Your task to perform on an android device: delete a single message in the gmail app Image 0: 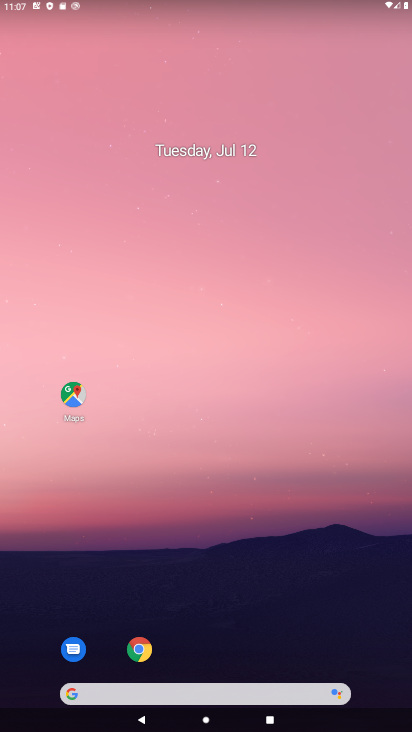
Step 0: drag from (370, 674) to (336, 88)
Your task to perform on an android device: delete a single message in the gmail app Image 1: 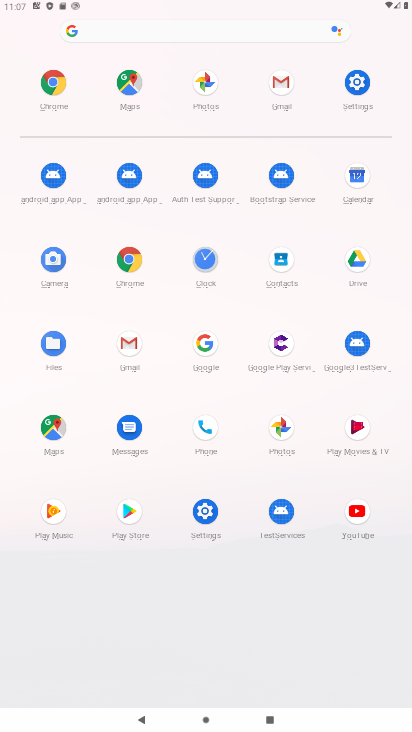
Step 1: click (127, 340)
Your task to perform on an android device: delete a single message in the gmail app Image 2: 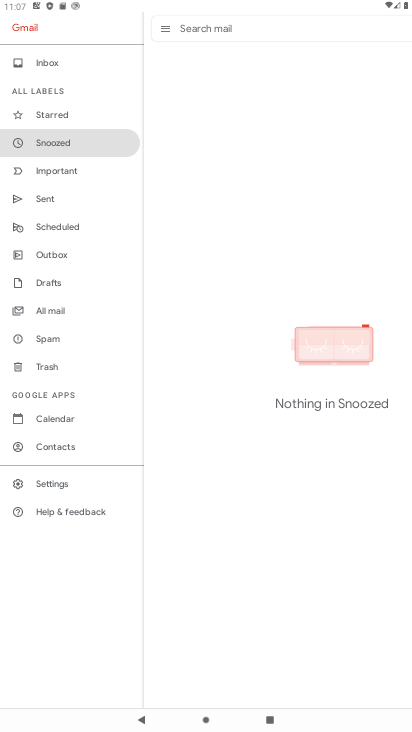
Step 2: click (50, 315)
Your task to perform on an android device: delete a single message in the gmail app Image 3: 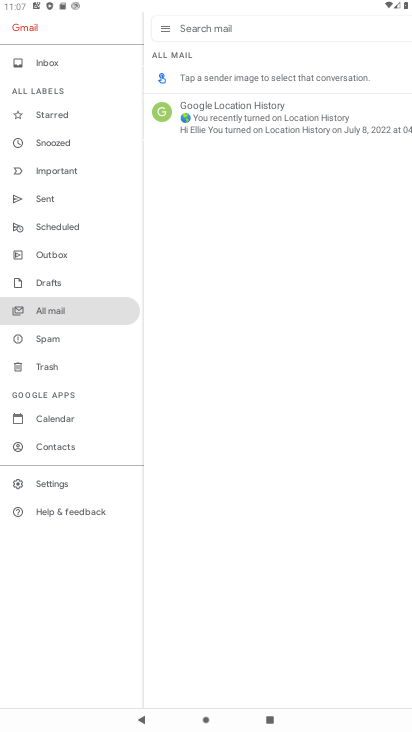
Step 3: click (261, 115)
Your task to perform on an android device: delete a single message in the gmail app Image 4: 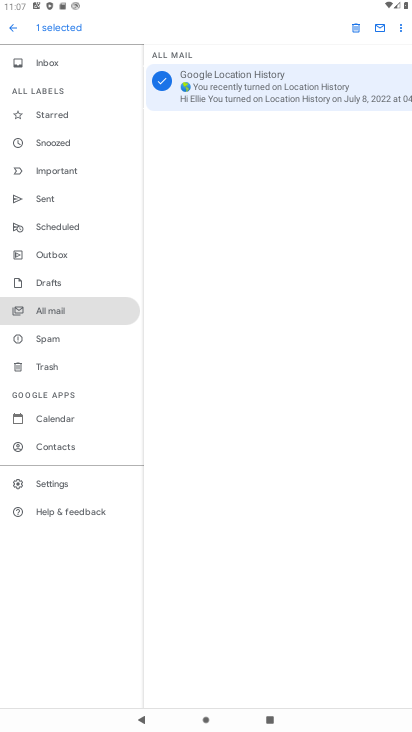
Step 4: click (355, 25)
Your task to perform on an android device: delete a single message in the gmail app Image 5: 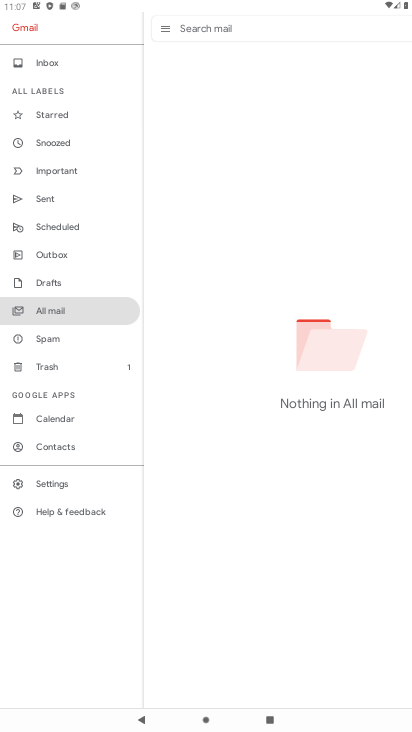
Step 5: task complete